Your task to perform on an android device: Open Google Chrome and open the bookmarks view Image 0: 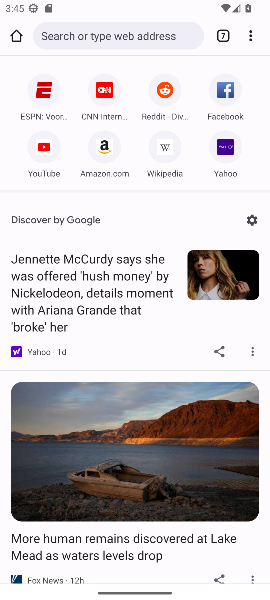
Step 0: press back button
Your task to perform on an android device: Open Google Chrome and open the bookmarks view Image 1: 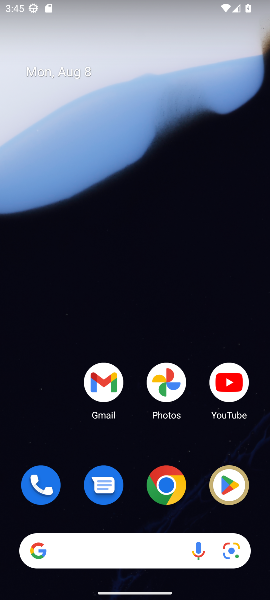
Step 1: drag from (149, 439) to (111, 0)
Your task to perform on an android device: Open Google Chrome and open the bookmarks view Image 2: 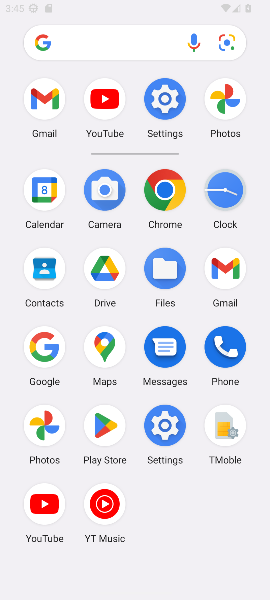
Step 2: drag from (154, 399) to (153, 68)
Your task to perform on an android device: Open Google Chrome and open the bookmarks view Image 3: 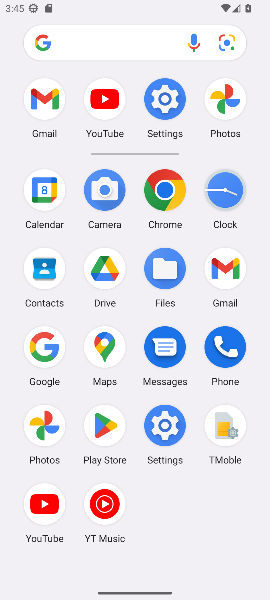
Step 3: click (180, 180)
Your task to perform on an android device: Open Google Chrome and open the bookmarks view Image 4: 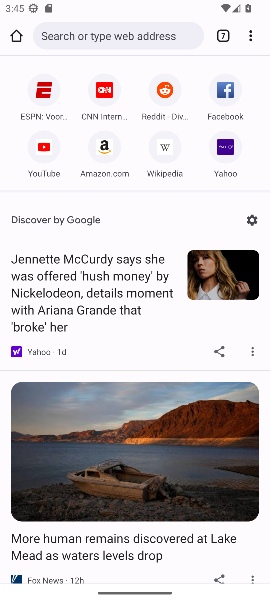
Step 4: click (246, 29)
Your task to perform on an android device: Open Google Chrome and open the bookmarks view Image 5: 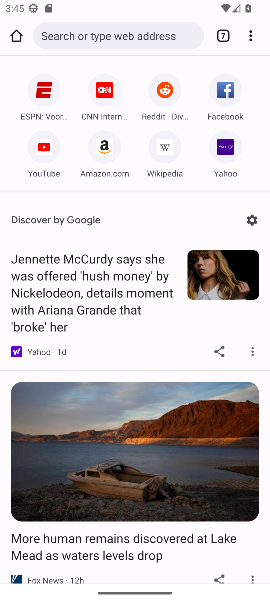
Step 5: drag from (244, 33) to (145, 206)
Your task to perform on an android device: Open Google Chrome and open the bookmarks view Image 6: 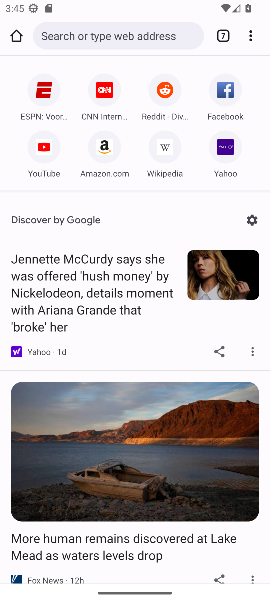
Step 6: click (145, 206)
Your task to perform on an android device: Open Google Chrome and open the bookmarks view Image 7: 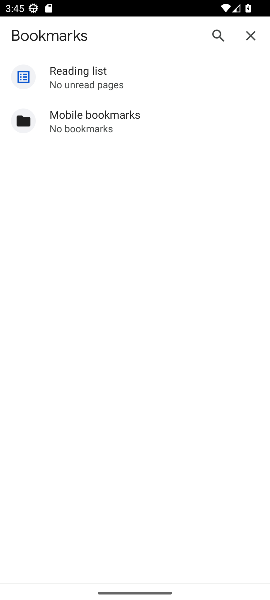
Step 7: task complete